Your task to perform on an android device: turn on the 12-hour format for clock Image 0: 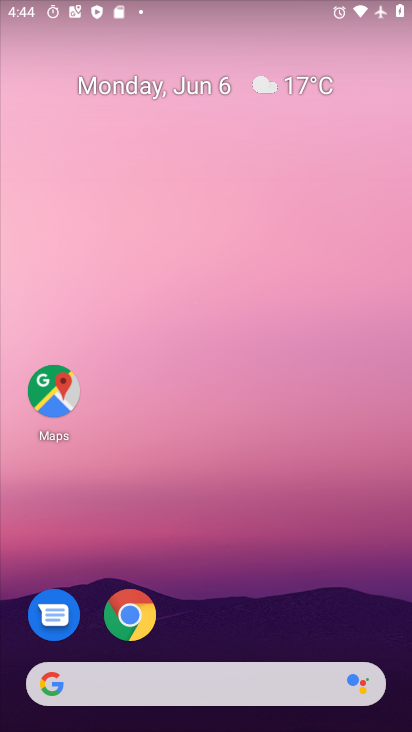
Step 0: drag from (222, 581) to (219, 43)
Your task to perform on an android device: turn on the 12-hour format for clock Image 1: 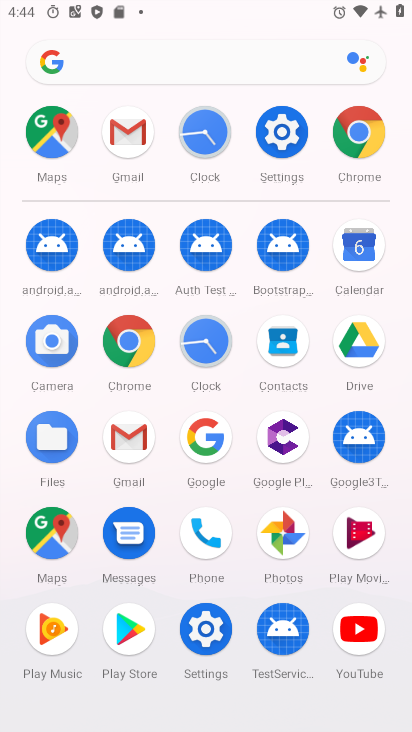
Step 1: drag from (11, 551) to (8, 270)
Your task to perform on an android device: turn on the 12-hour format for clock Image 2: 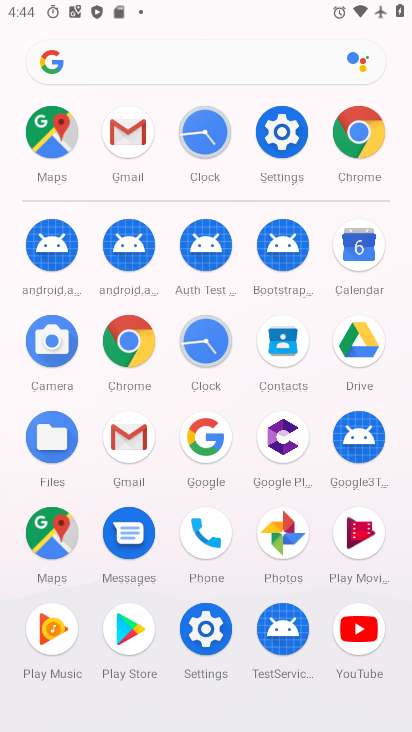
Step 2: click (207, 339)
Your task to perform on an android device: turn on the 12-hour format for clock Image 3: 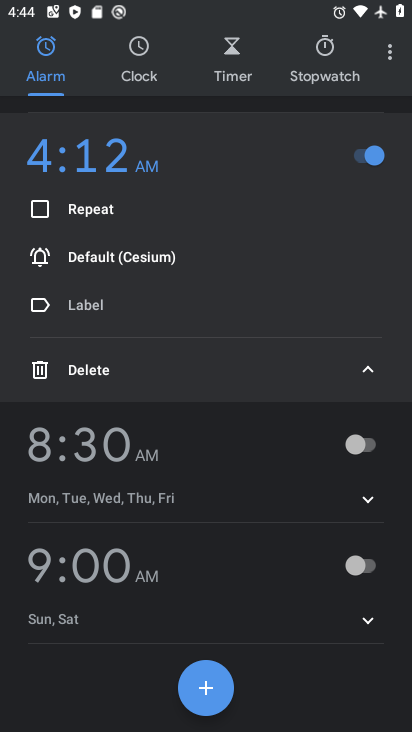
Step 3: drag from (389, 51) to (310, 99)
Your task to perform on an android device: turn on the 12-hour format for clock Image 4: 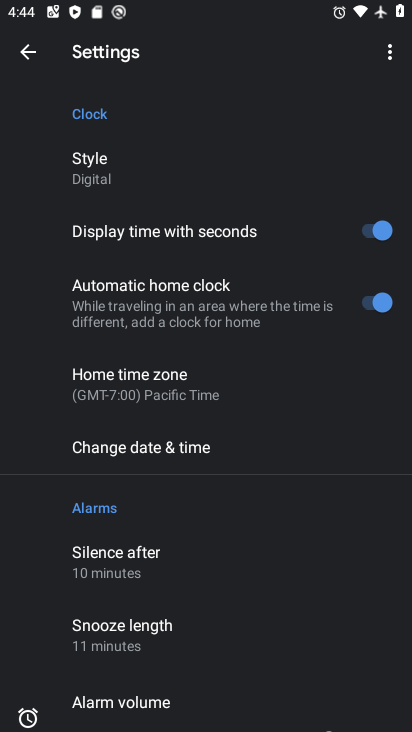
Step 4: click (145, 445)
Your task to perform on an android device: turn on the 12-hour format for clock Image 5: 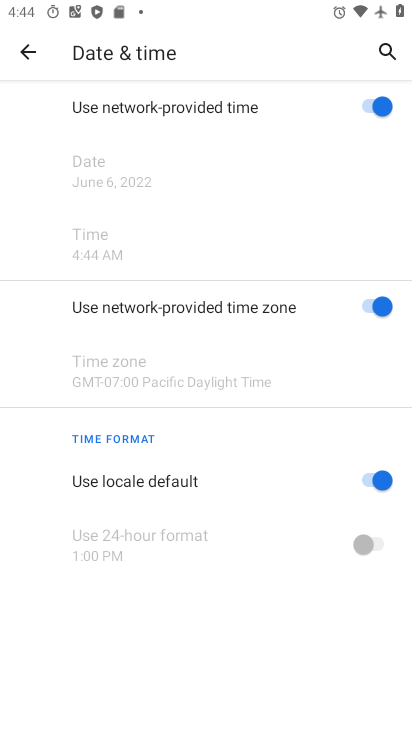
Step 5: task complete